Your task to perform on an android device: Search for bose soundsport free on target.com, select the first entry, add it to the cart, then select checkout. Image 0: 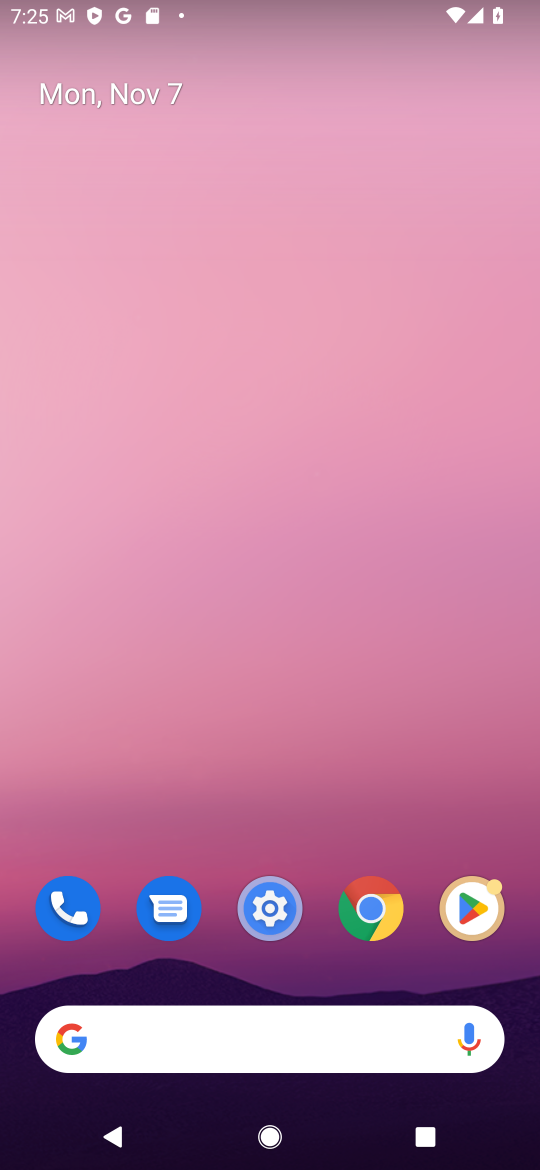
Step 0: click (263, 1030)
Your task to perform on an android device: Search for bose soundsport free on target.com, select the first entry, add it to the cart, then select checkout. Image 1: 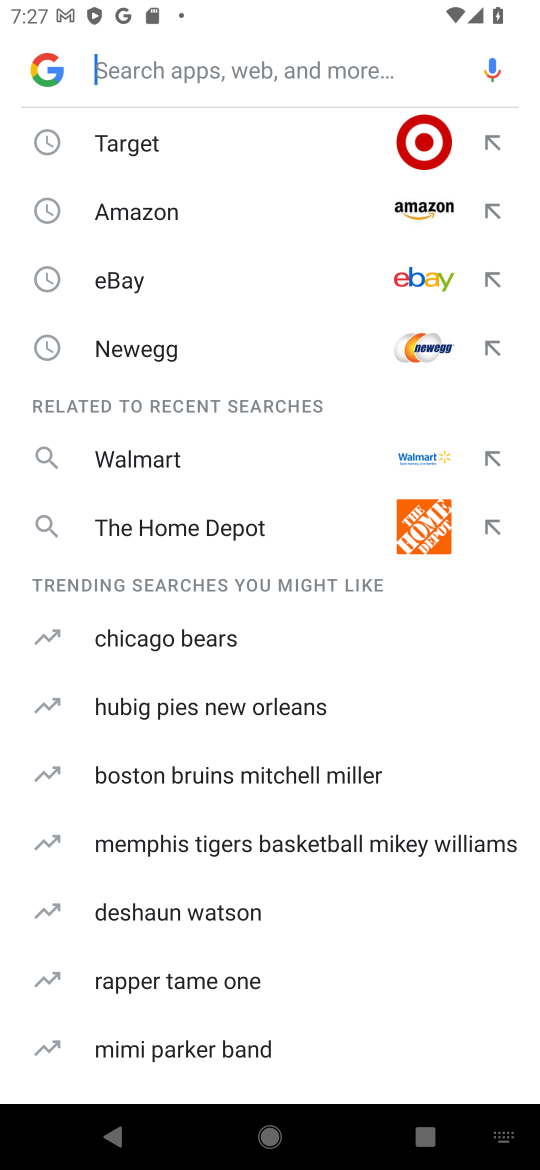
Step 1: click (118, 180)
Your task to perform on an android device: Search for bose soundsport free on target.com, select the first entry, add it to the cart, then select checkout. Image 2: 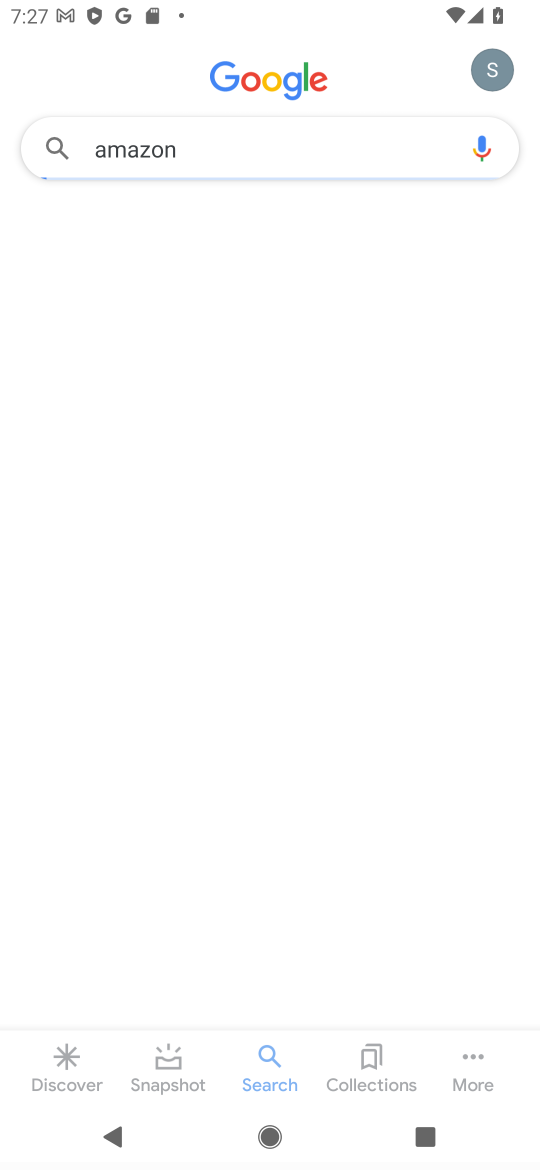
Step 2: task complete